Your task to perform on an android device: Open accessibility settings Image 0: 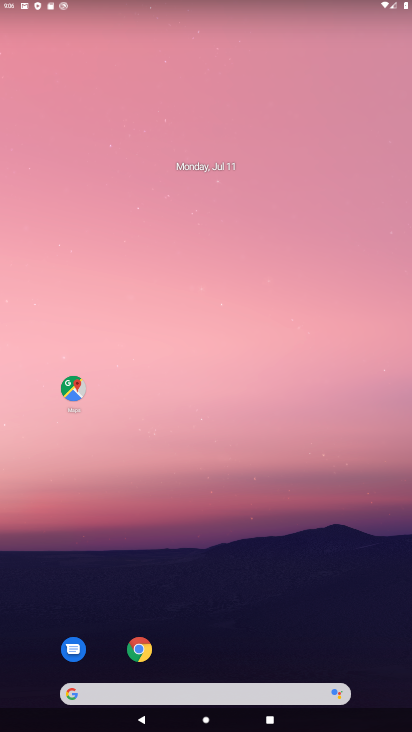
Step 0: click (274, 102)
Your task to perform on an android device: Open accessibility settings Image 1: 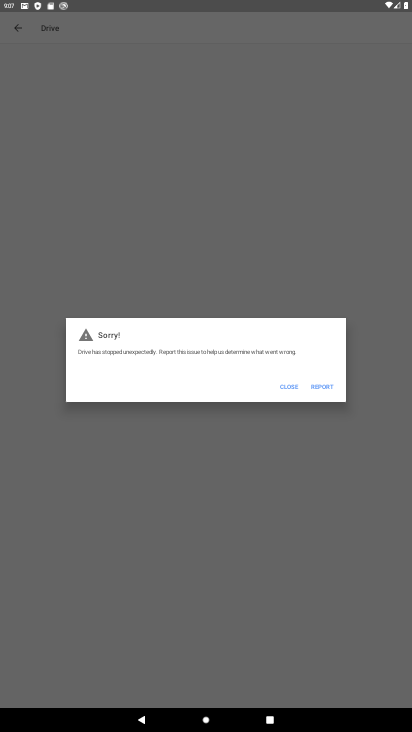
Step 1: press home button
Your task to perform on an android device: Open accessibility settings Image 2: 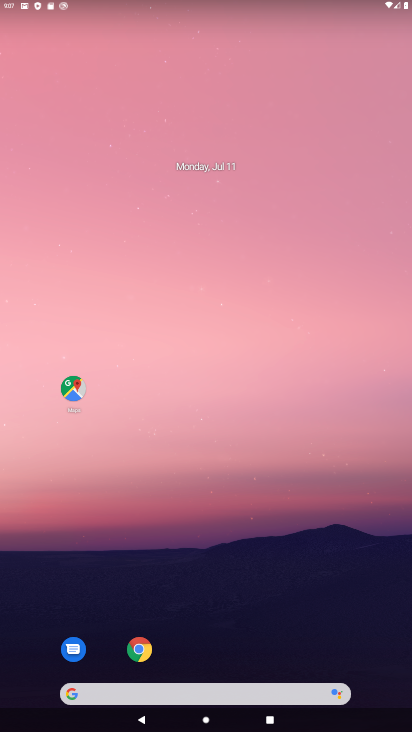
Step 2: drag from (267, 639) to (346, 4)
Your task to perform on an android device: Open accessibility settings Image 3: 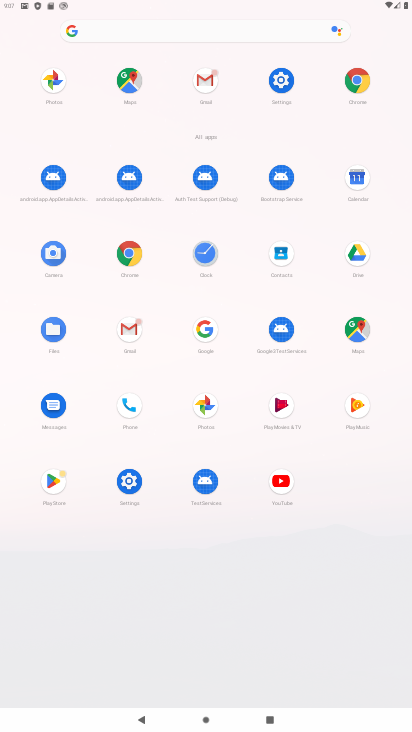
Step 3: click (290, 92)
Your task to perform on an android device: Open accessibility settings Image 4: 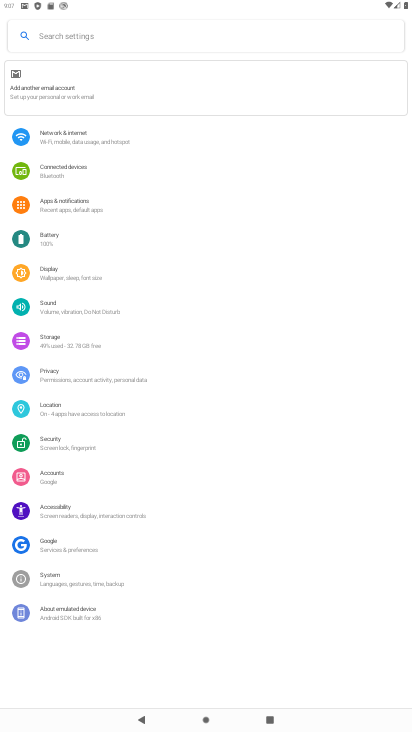
Step 4: click (76, 510)
Your task to perform on an android device: Open accessibility settings Image 5: 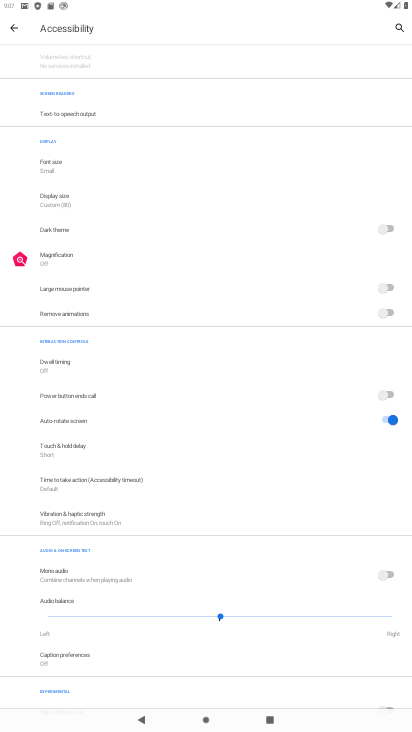
Step 5: task complete